Your task to perform on an android device: delete the emails in spam in the gmail app Image 0: 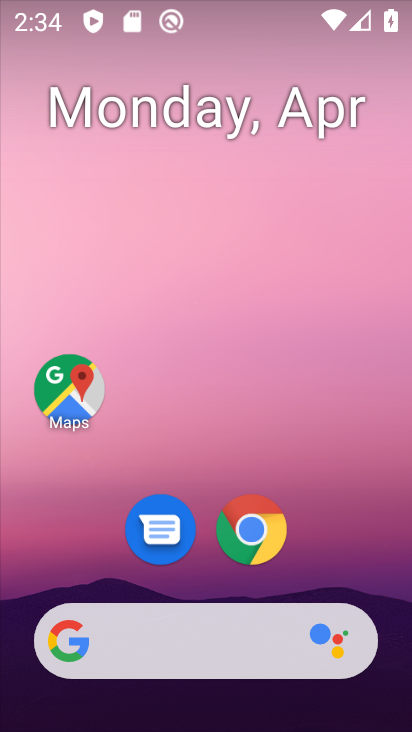
Step 0: press home button
Your task to perform on an android device: delete the emails in spam in the gmail app Image 1: 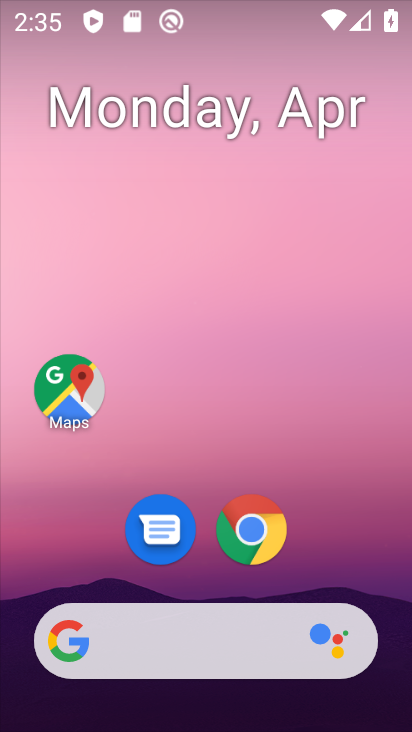
Step 1: drag from (312, 556) to (248, 224)
Your task to perform on an android device: delete the emails in spam in the gmail app Image 2: 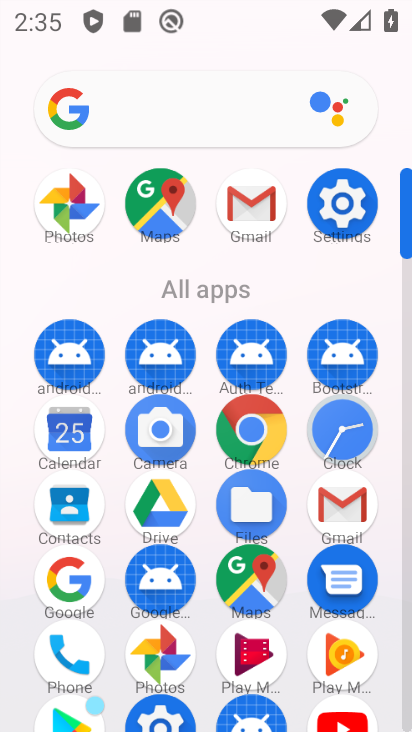
Step 2: click (237, 219)
Your task to perform on an android device: delete the emails in spam in the gmail app Image 3: 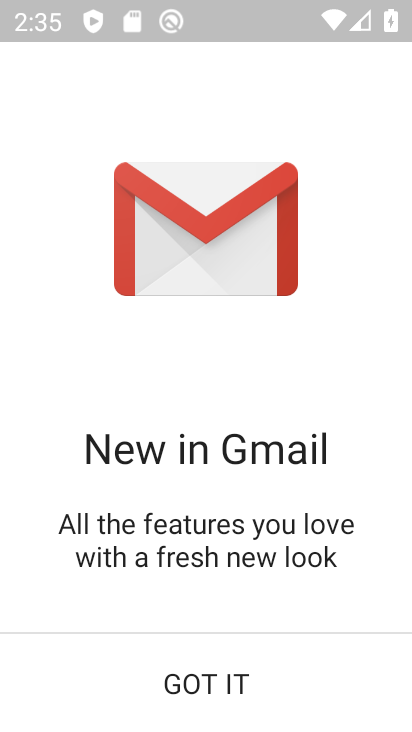
Step 3: click (250, 676)
Your task to perform on an android device: delete the emails in spam in the gmail app Image 4: 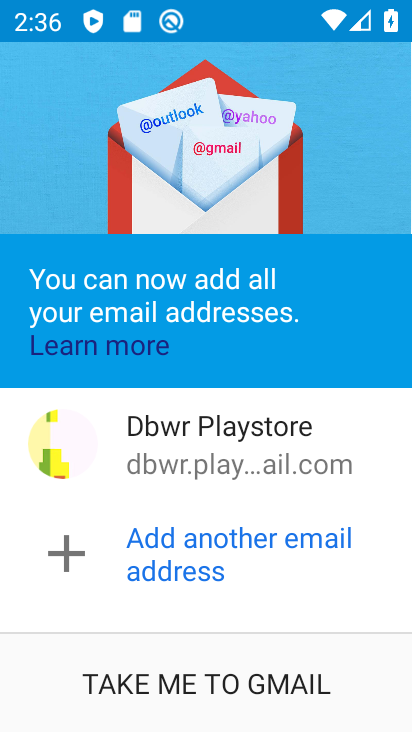
Step 4: click (227, 688)
Your task to perform on an android device: delete the emails in spam in the gmail app Image 5: 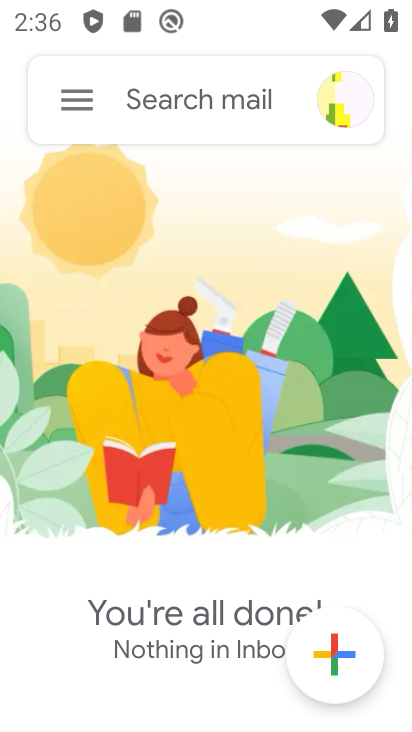
Step 5: click (66, 98)
Your task to perform on an android device: delete the emails in spam in the gmail app Image 6: 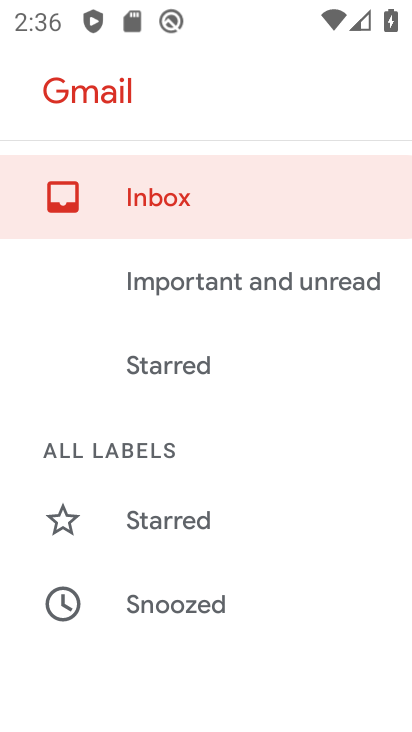
Step 6: drag from (222, 558) to (248, 251)
Your task to perform on an android device: delete the emails in spam in the gmail app Image 7: 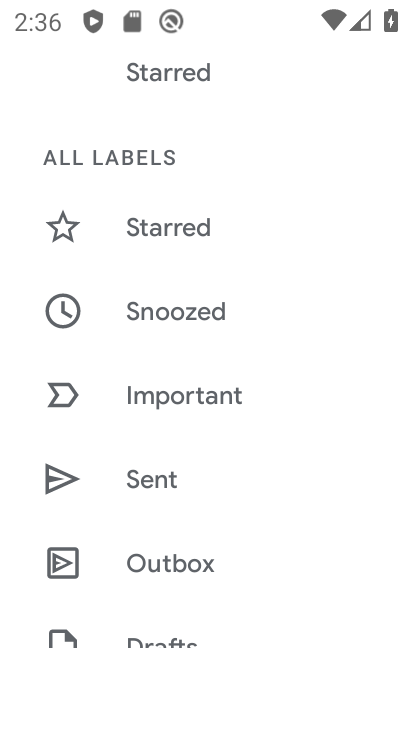
Step 7: drag from (192, 526) to (198, 177)
Your task to perform on an android device: delete the emails in spam in the gmail app Image 8: 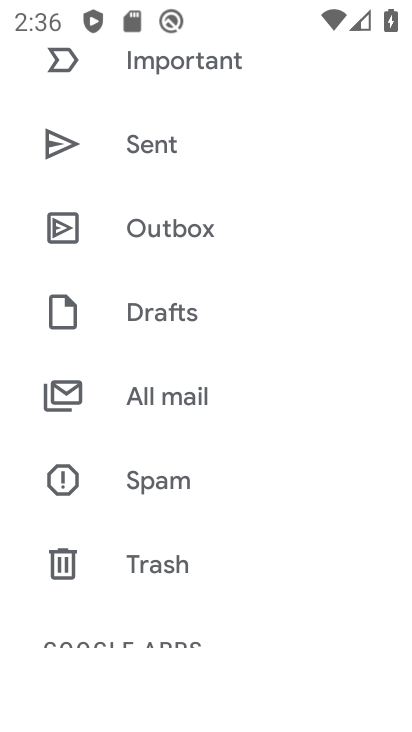
Step 8: click (170, 474)
Your task to perform on an android device: delete the emails in spam in the gmail app Image 9: 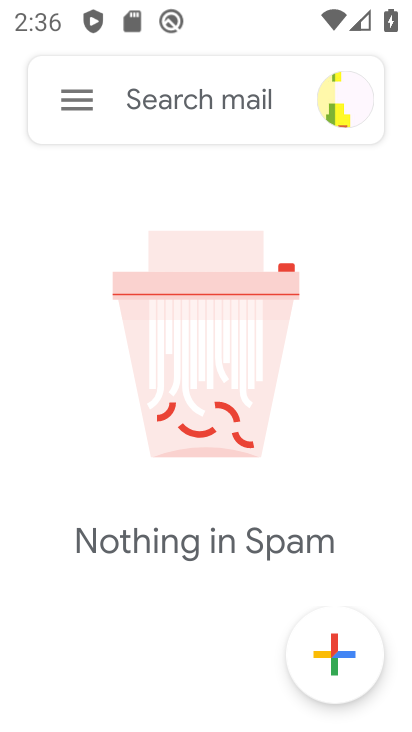
Step 9: click (82, 114)
Your task to perform on an android device: delete the emails in spam in the gmail app Image 10: 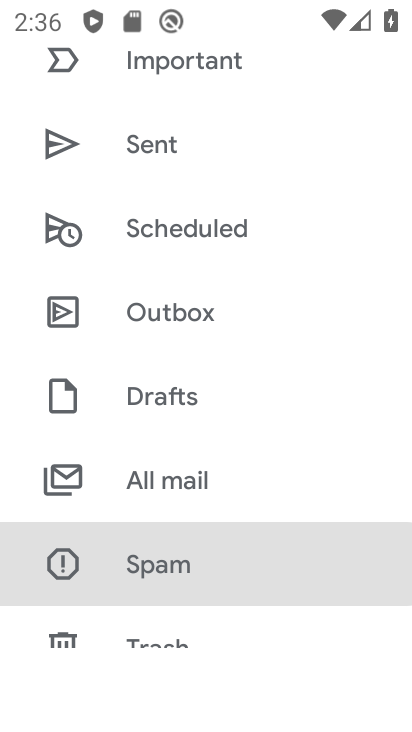
Step 10: click (165, 548)
Your task to perform on an android device: delete the emails in spam in the gmail app Image 11: 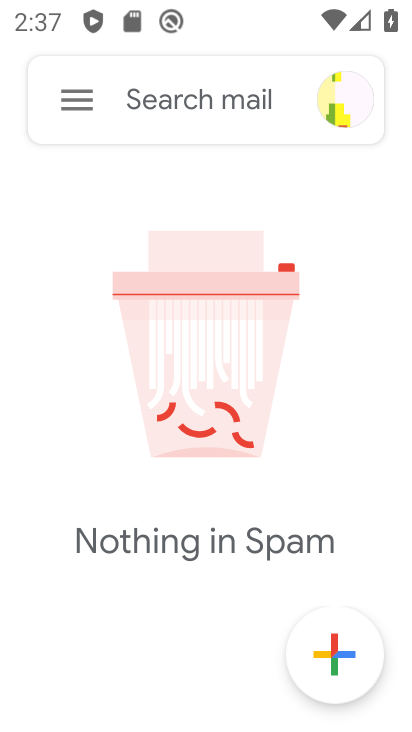
Step 11: task complete